Your task to perform on an android device: turn off airplane mode Image 0: 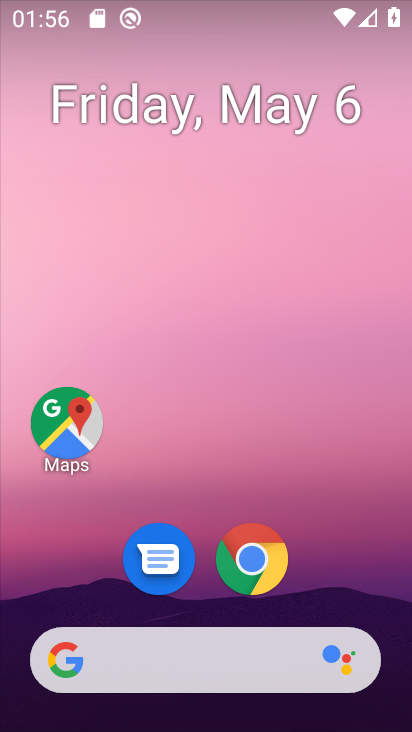
Step 0: drag from (311, 632) to (329, 23)
Your task to perform on an android device: turn off airplane mode Image 1: 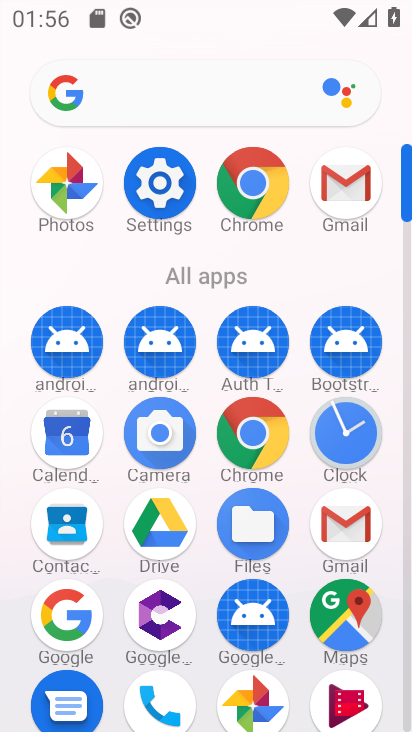
Step 1: drag from (205, 657) to (209, 216)
Your task to perform on an android device: turn off airplane mode Image 2: 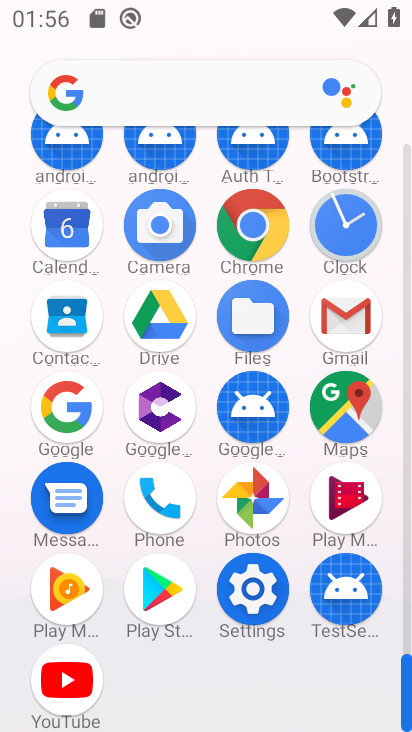
Step 2: click (261, 581)
Your task to perform on an android device: turn off airplane mode Image 3: 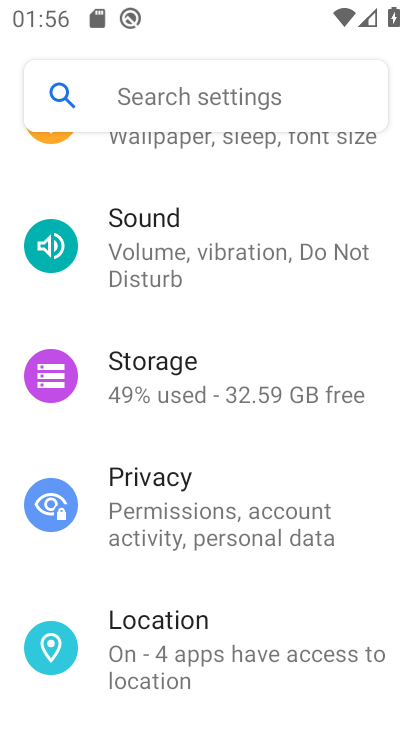
Step 3: drag from (264, 216) to (296, 729)
Your task to perform on an android device: turn off airplane mode Image 4: 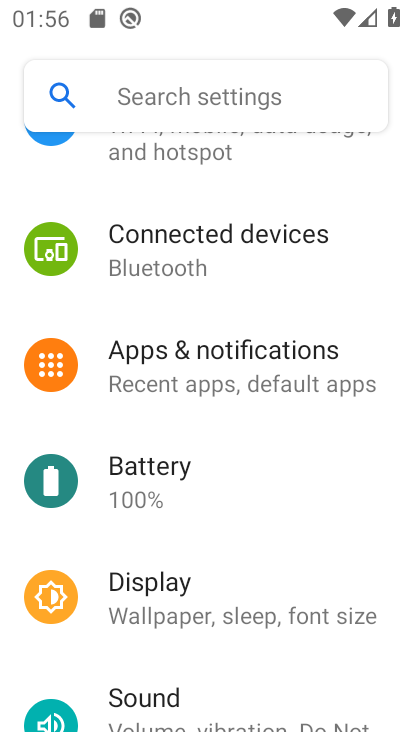
Step 4: drag from (220, 258) to (278, 696)
Your task to perform on an android device: turn off airplane mode Image 5: 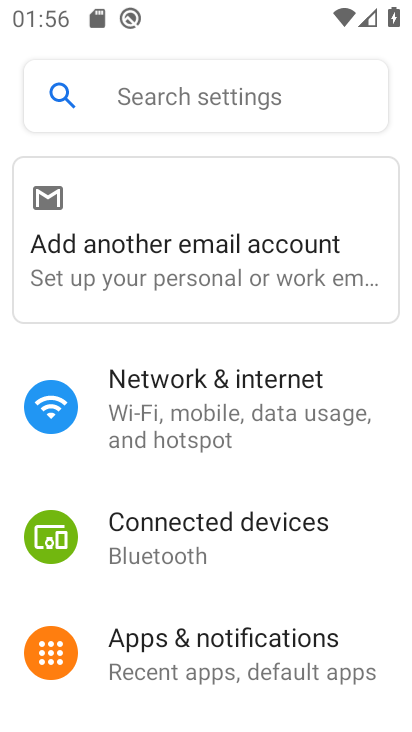
Step 5: drag from (263, 218) to (288, 673)
Your task to perform on an android device: turn off airplane mode Image 6: 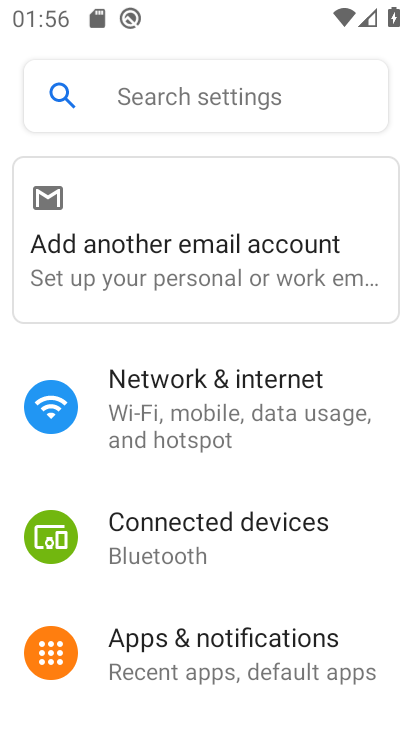
Step 6: click (272, 418)
Your task to perform on an android device: turn off airplane mode Image 7: 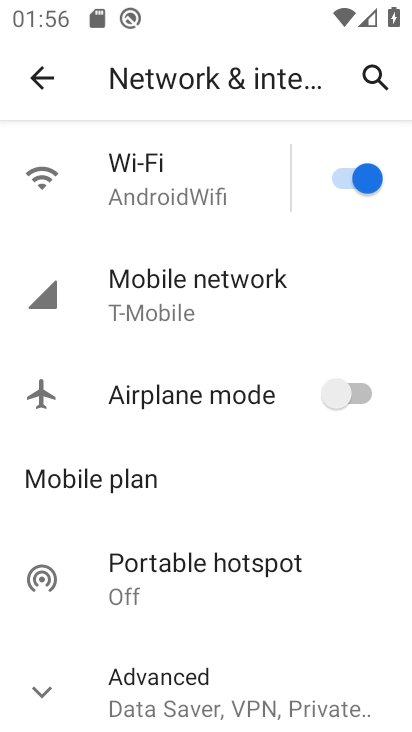
Step 7: task complete